Your task to perform on an android device: Go to CNN.com Image 0: 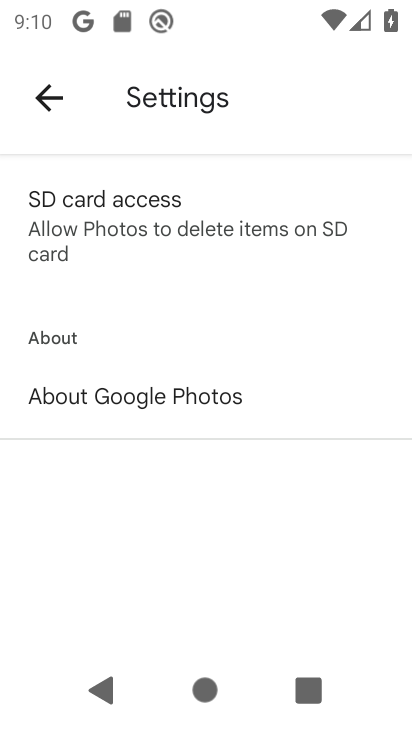
Step 0: press home button
Your task to perform on an android device: Go to CNN.com Image 1: 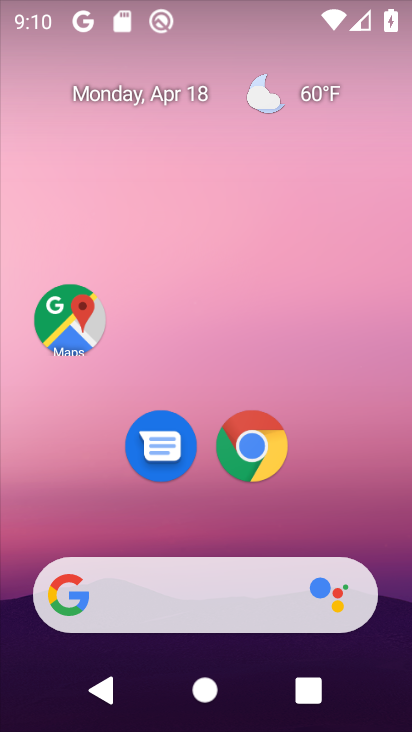
Step 1: drag from (329, 514) to (344, 90)
Your task to perform on an android device: Go to CNN.com Image 2: 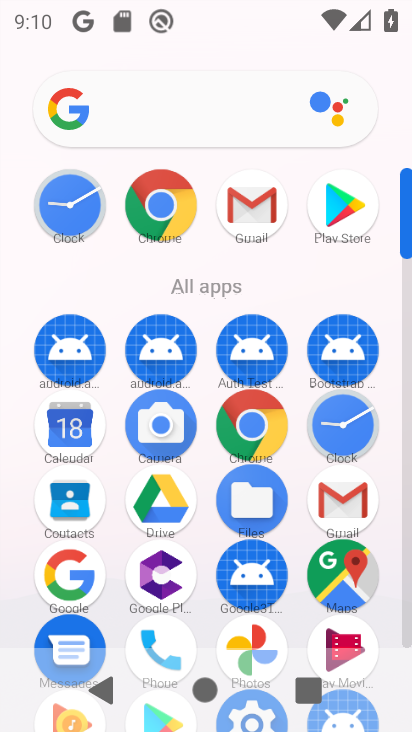
Step 2: drag from (394, 510) to (398, 283)
Your task to perform on an android device: Go to CNN.com Image 3: 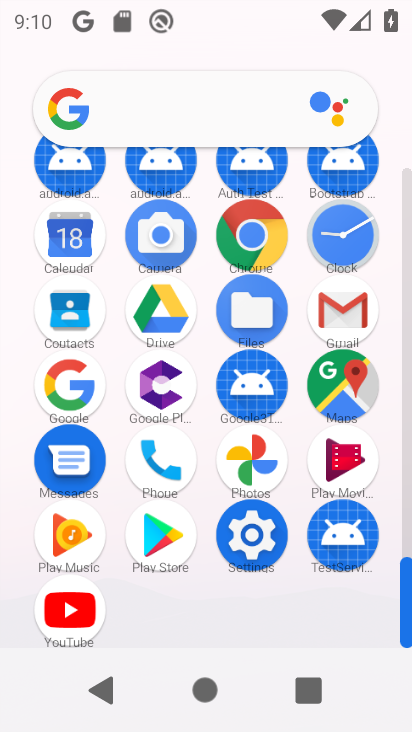
Step 3: click (253, 229)
Your task to perform on an android device: Go to CNN.com Image 4: 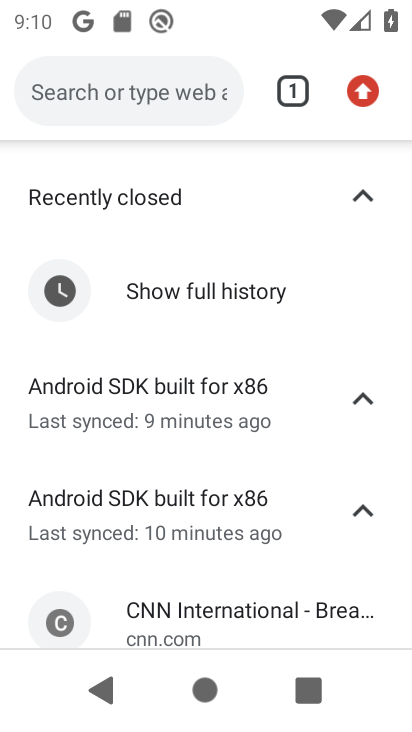
Step 4: click (154, 90)
Your task to perform on an android device: Go to CNN.com Image 5: 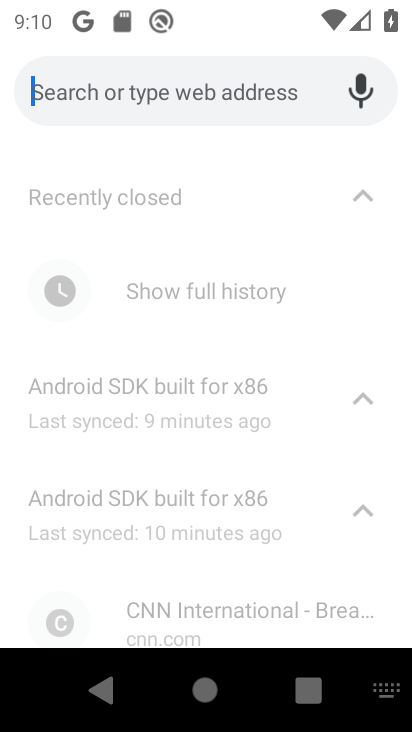
Step 5: click (173, 94)
Your task to perform on an android device: Go to CNN.com Image 6: 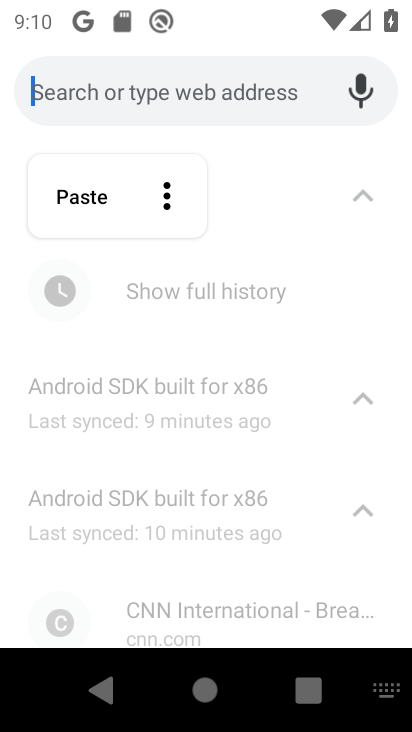
Step 6: type "cnn.com"
Your task to perform on an android device: Go to CNN.com Image 7: 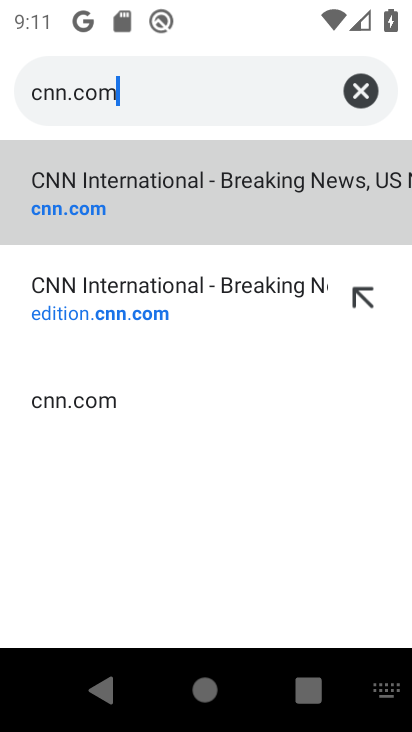
Step 7: click (95, 412)
Your task to perform on an android device: Go to CNN.com Image 8: 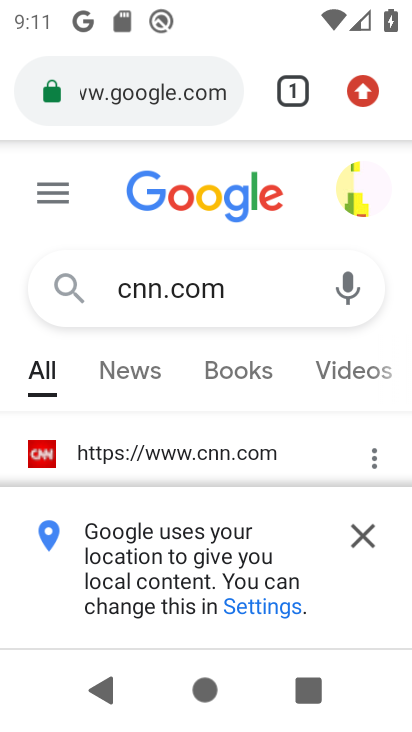
Step 8: task complete